Your task to perform on an android device: Go to privacy settings Image 0: 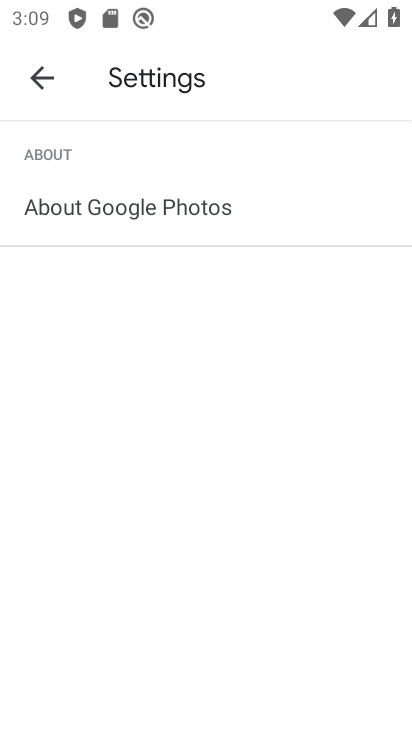
Step 0: press home button
Your task to perform on an android device: Go to privacy settings Image 1: 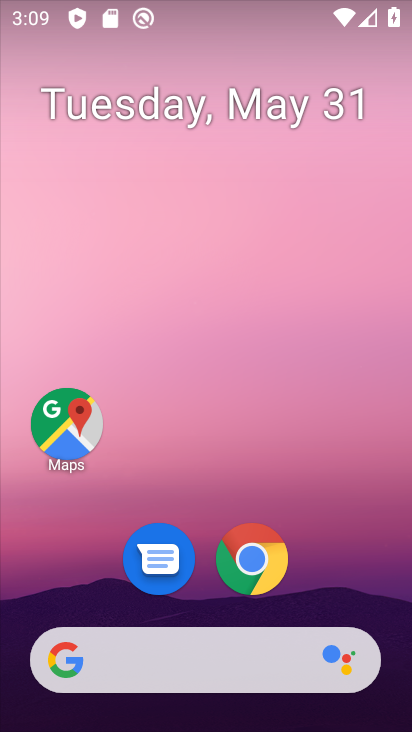
Step 1: drag from (230, 723) to (193, 176)
Your task to perform on an android device: Go to privacy settings Image 2: 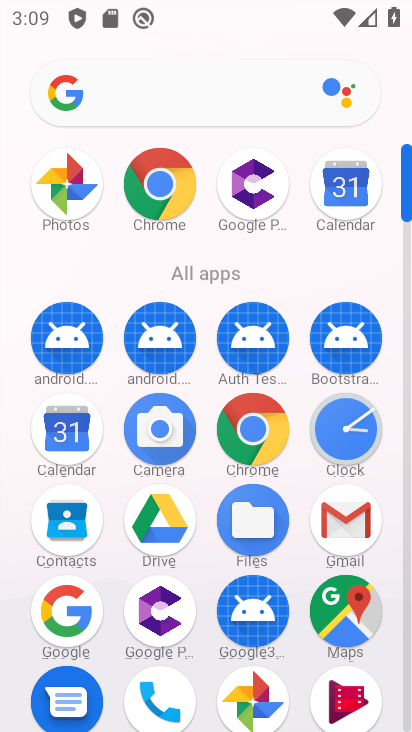
Step 2: drag from (199, 628) to (198, 196)
Your task to perform on an android device: Go to privacy settings Image 3: 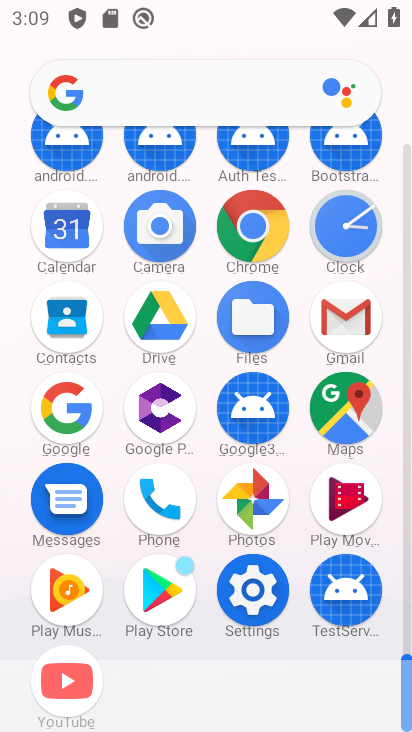
Step 3: click (257, 588)
Your task to perform on an android device: Go to privacy settings Image 4: 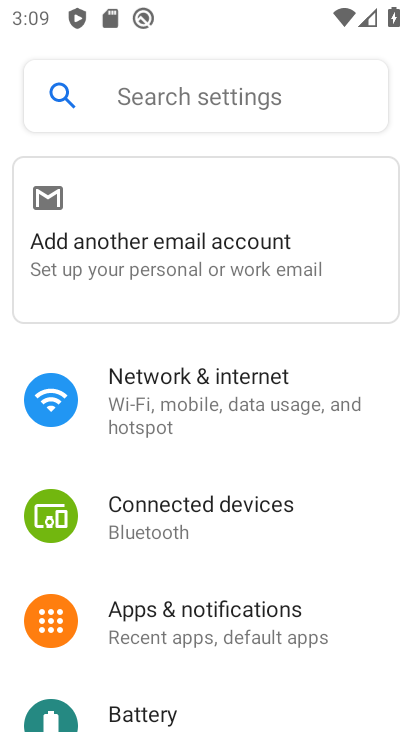
Step 4: drag from (172, 692) to (175, 354)
Your task to perform on an android device: Go to privacy settings Image 5: 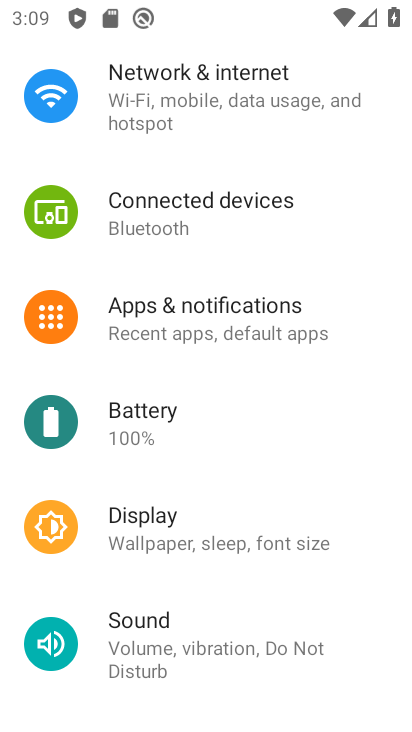
Step 5: drag from (175, 679) to (177, 399)
Your task to perform on an android device: Go to privacy settings Image 6: 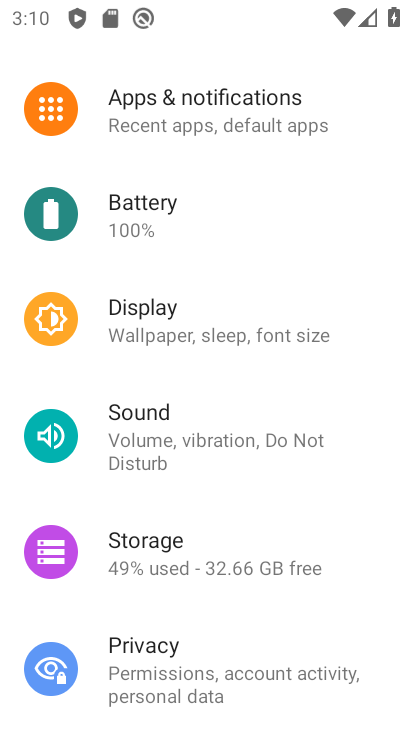
Step 6: click (135, 645)
Your task to perform on an android device: Go to privacy settings Image 7: 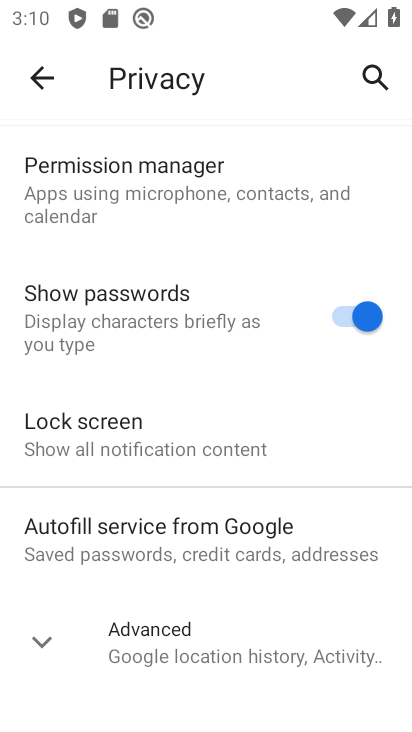
Step 7: task complete